Your task to perform on an android device: turn off picture-in-picture Image 0: 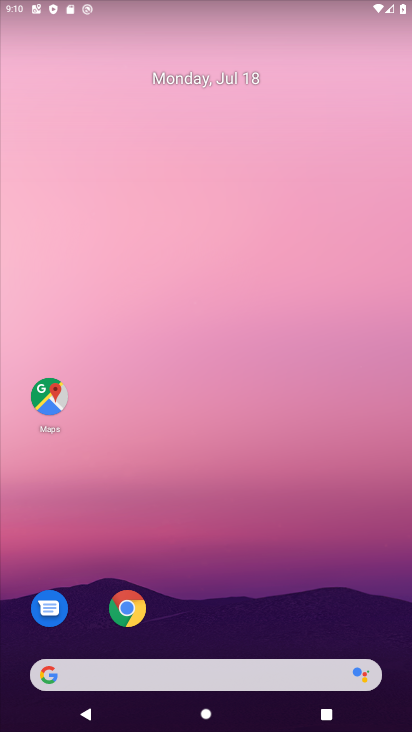
Step 0: press home button
Your task to perform on an android device: turn off picture-in-picture Image 1: 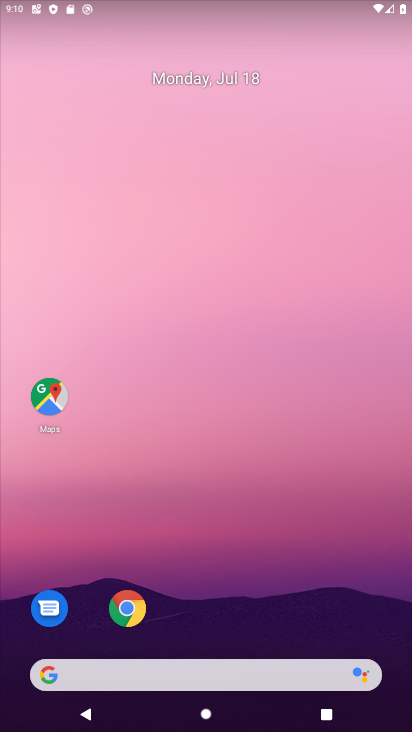
Step 1: click (122, 602)
Your task to perform on an android device: turn off picture-in-picture Image 2: 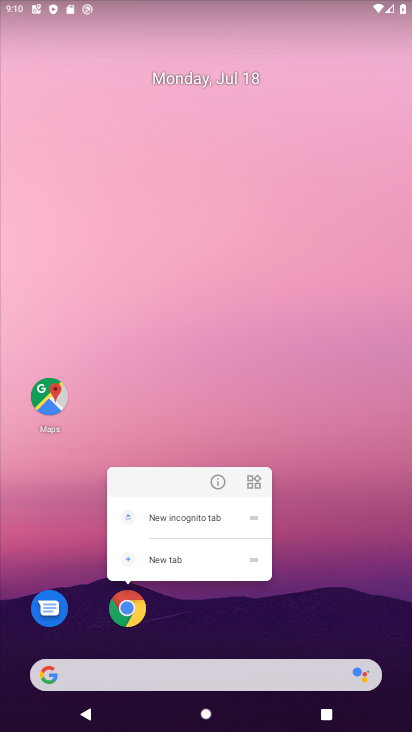
Step 2: click (216, 478)
Your task to perform on an android device: turn off picture-in-picture Image 3: 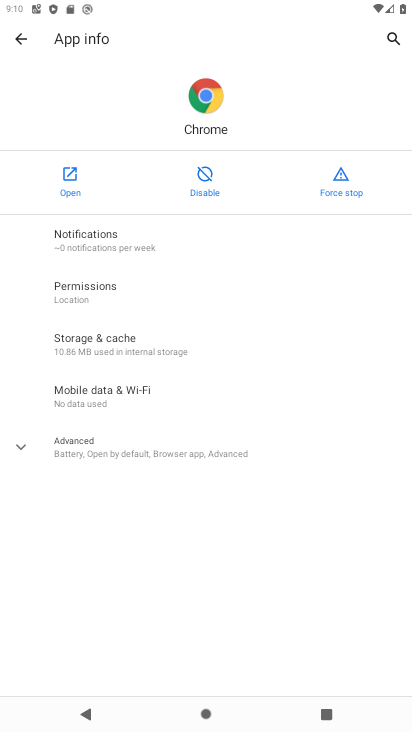
Step 3: click (16, 443)
Your task to perform on an android device: turn off picture-in-picture Image 4: 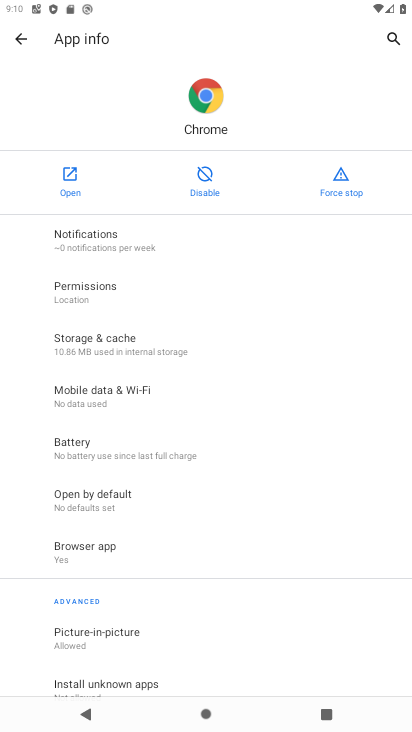
Step 4: click (99, 638)
Your task to perform on an android device: turn off picture-in-picture Image 5: 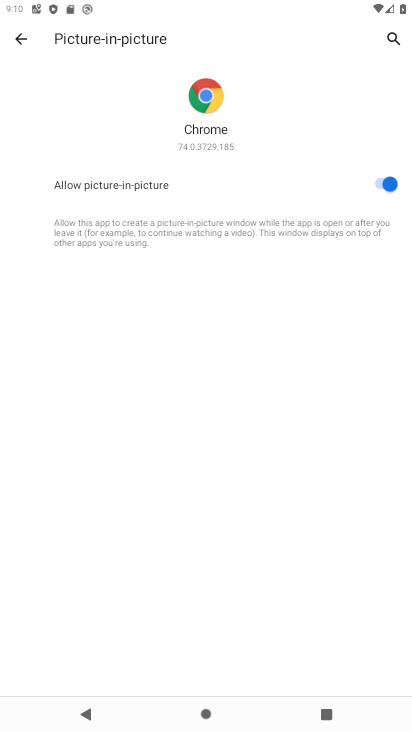
Step 5: click (384, 183)
Your task to perform on an android device: turn off picture-in-picture Image 6: 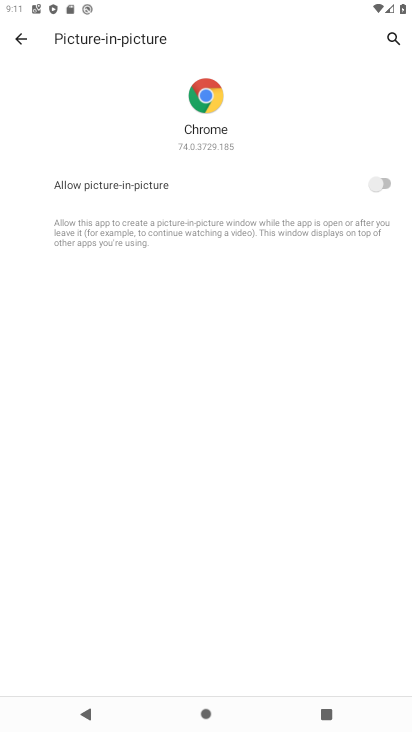
Step 6: task complete